Your task to perform on an android device: toggle show notifications on the lock screen Image 0: 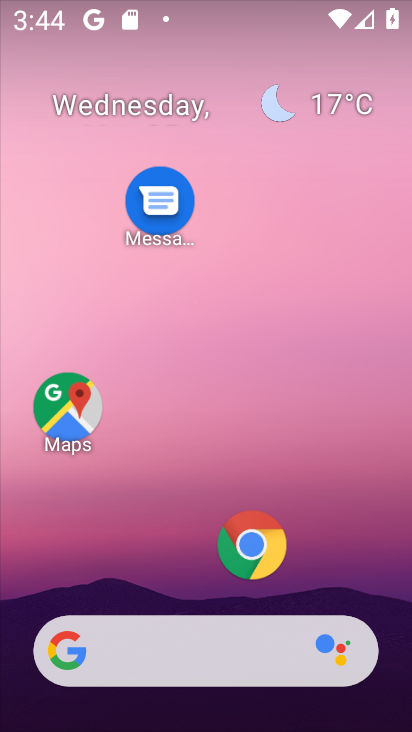
Step 0: drag from (304, 563) to (327, 101)
Your task to perform on an android device: toggle show notifications on the lock screen Image 1: 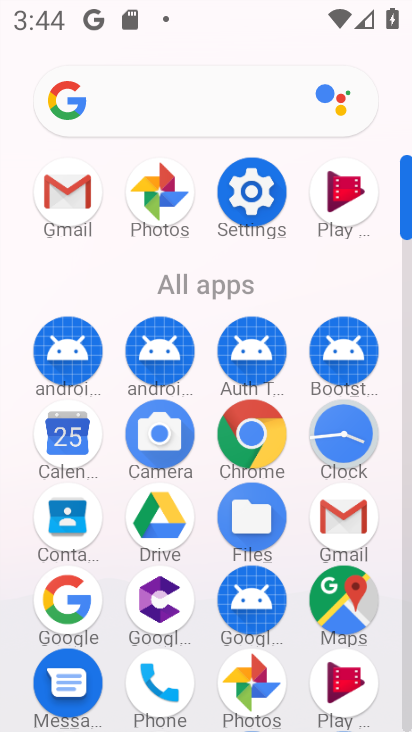
Step 1: click (249, 184)
Your task to perform on an android device: toggle show notifications on the lock screen Image 2: 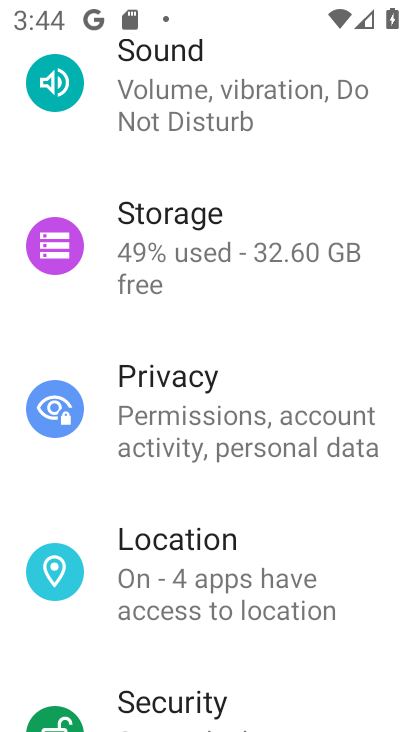
Step 2: drag from (290, 188) to (284, 499)
Your task to perform on an android device: toggle show notifications on the lock screen Image 3: 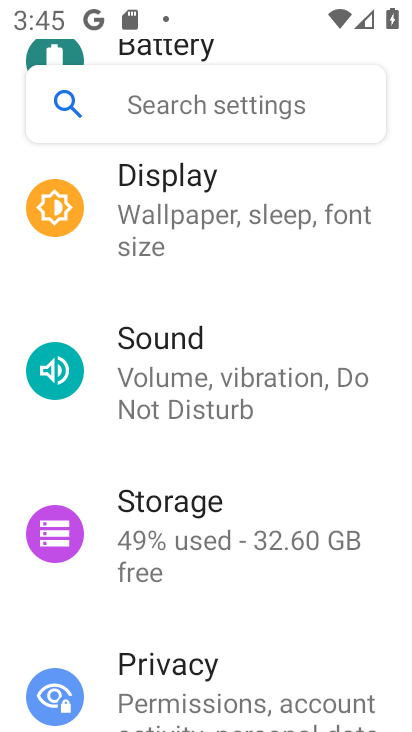
Step 3: drag from (276, 206) to (316, 545)
Your task to perform on an android device: toggle show notifications on the lock screen Image 4: 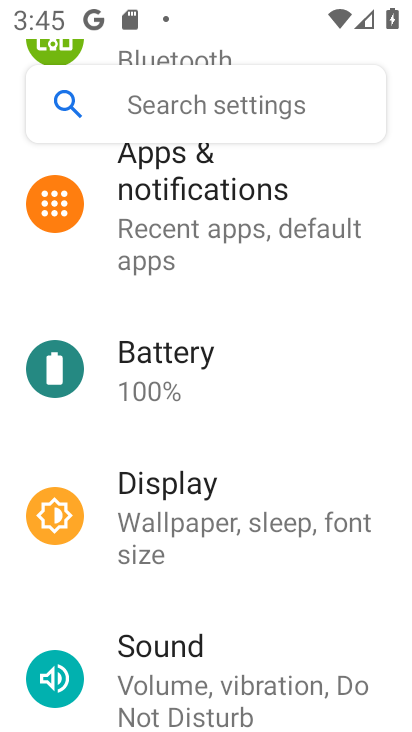
Step 4: drag from (300, 265) to (304, 567)
Your task to perform on an android device: toggle show notifications on the lock screen Image 5: 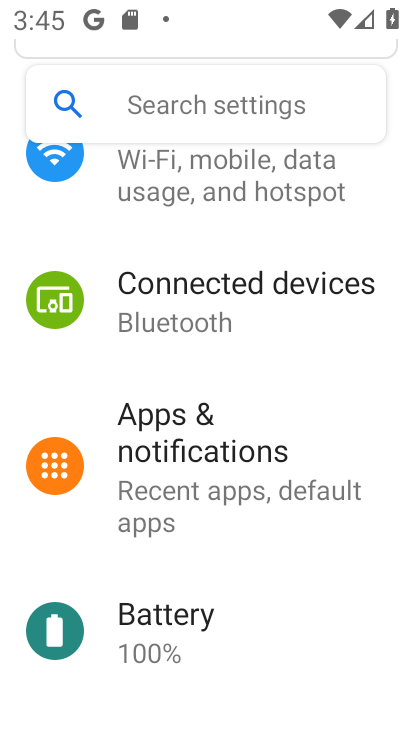
Step 5: click (238, 492)
Your task to perform on an android device: toggle show notifications on the lock screen Image 6: 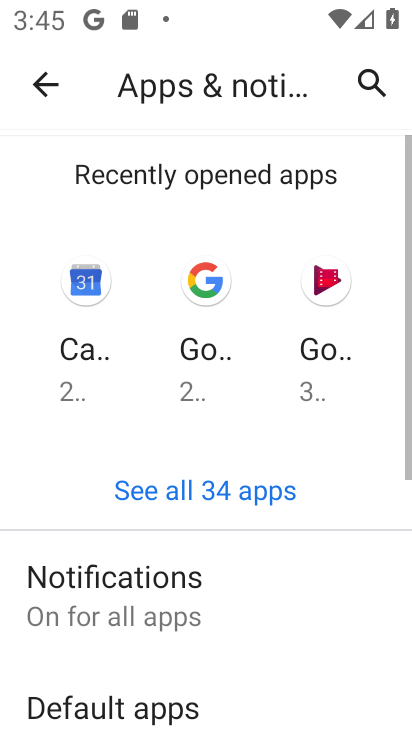
Step 6: click (139, 603)
Your task to perform on an android device: toggle show notifications on the lock screen Image 7: 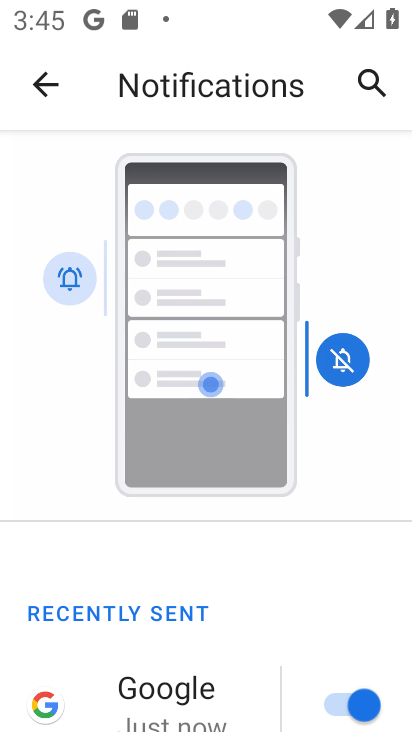
Step 7: drag from (212, 623) to (251, 181)
Your task to perform on an android device: toggle show notifications on the lock screen Image 8: 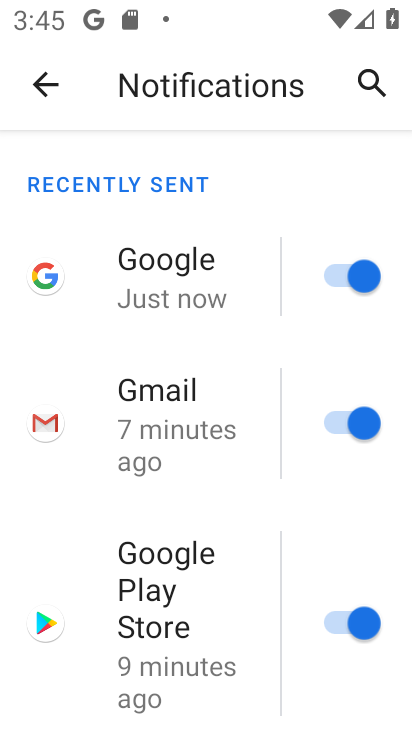
Step 8: drag from (224, 665) to (211, 331)
Your task to perform on an android device: toggle show notifications on the lock screen Image 9: 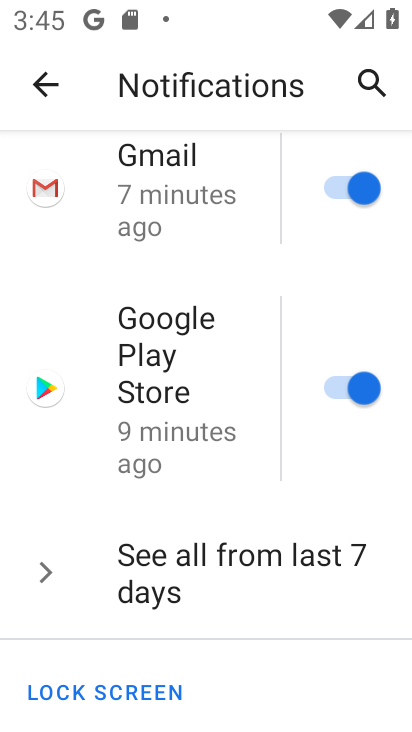
Step 9: drag from (235, 650) to (195, 296)
Your task to perform on an android device: toggle show notifications on the lock screen Image 10: 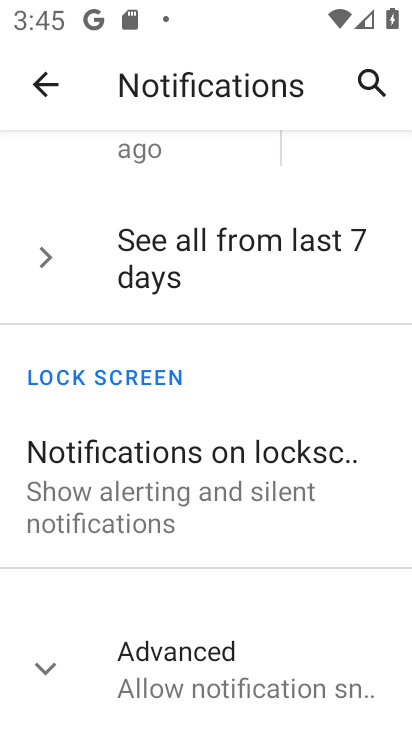
Step 10: click (208, 505)
Your task to perform on an android device: toggle show notifications on the lock screen Image 11: 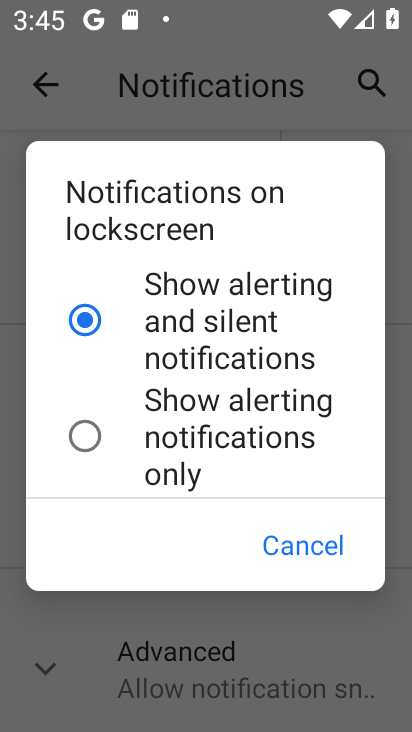
Step 11: drag from (185, 284) to (201, 445)
Your task to perform on an android device: toggle show notifications on the lock screen Image 12: 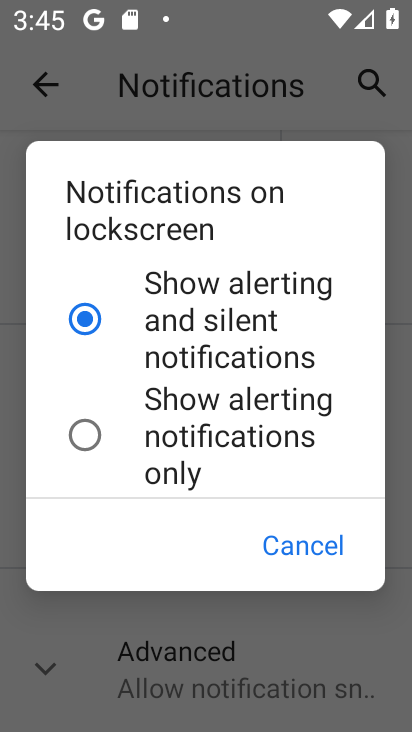
Step 12: click (245, 337)
Your task to perform on an android device: toggle show notifications on the lock screen Image 13: 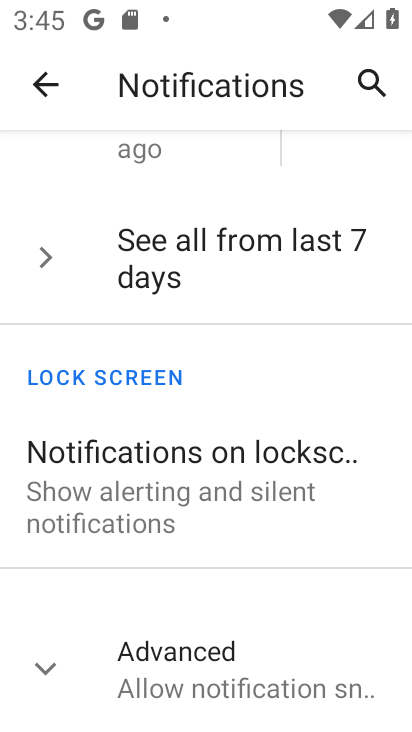
Step 13: task complete